Your task to perform on an android device: Open display settings Image 0: 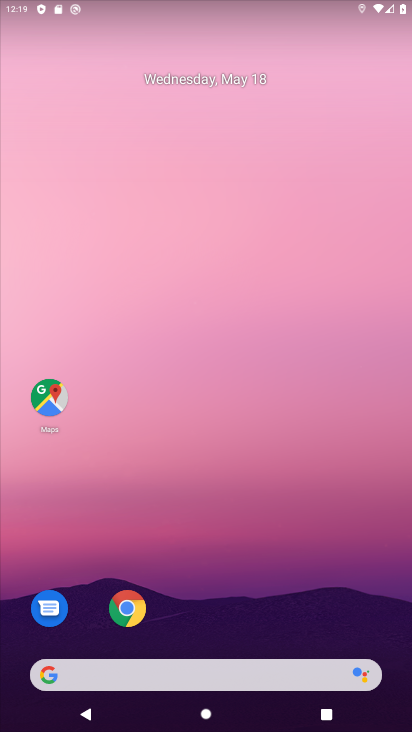
Step 0: drag from (194, 642) to (302, 149)
Your task to perform on an android device: Open display settings Image 1: 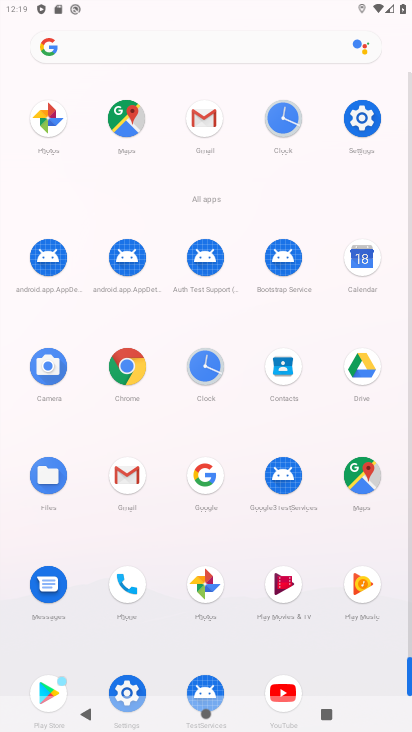
Step 1: drag from (191, 608) to (221, 394)
Your task to perform on an android device: Open display settings Image 2: 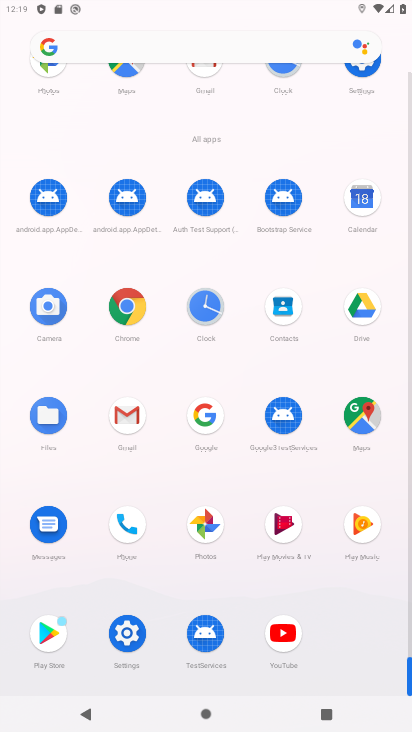
Step 2: click (128, 635)
Your task to perform on an android device: Open display settings Image 3: 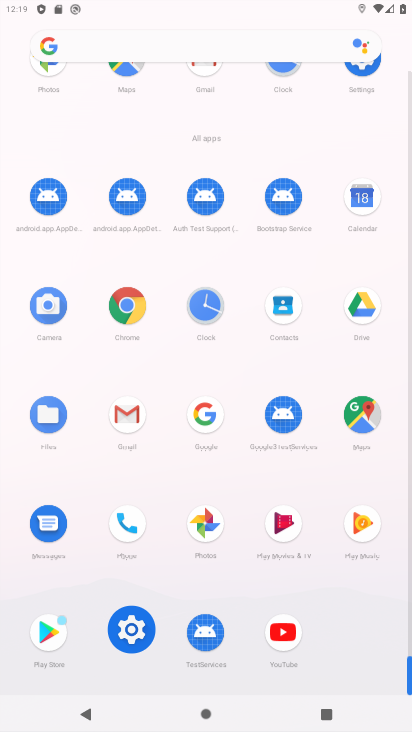
Step 3: click (128, 635)
Your task to perform on an android device: Open display settings Image 4: 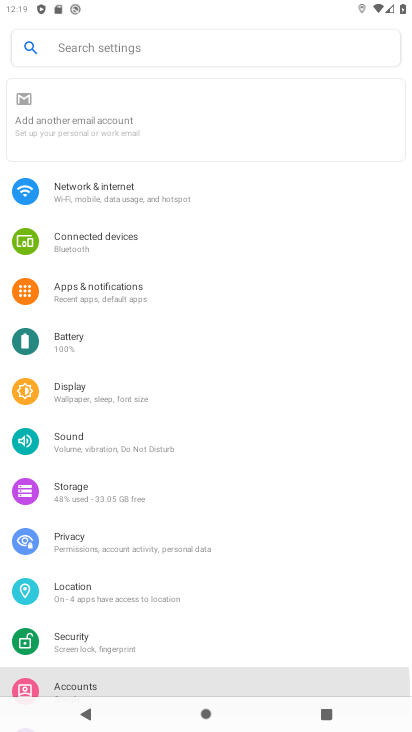
Step 4: click (128, 635)
Your task to perform on an android device: Open display settings Image 5: 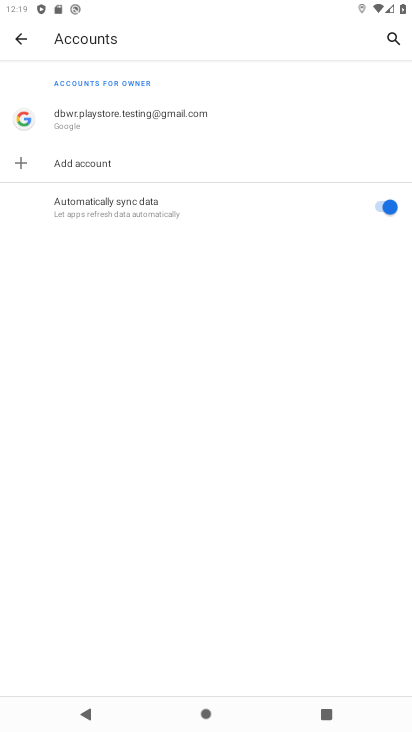
Step 5: click (128, 635)
Your task to perform on an android device: Open display settings Image 6: 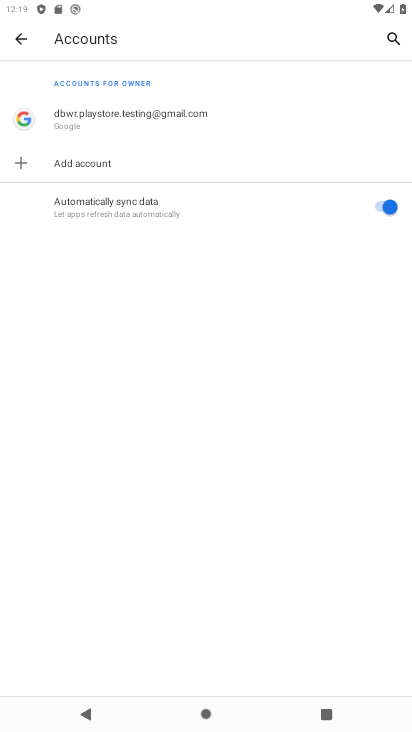
Step 6: press home button
Your task to perform on an android device: Open display settings Image 7: 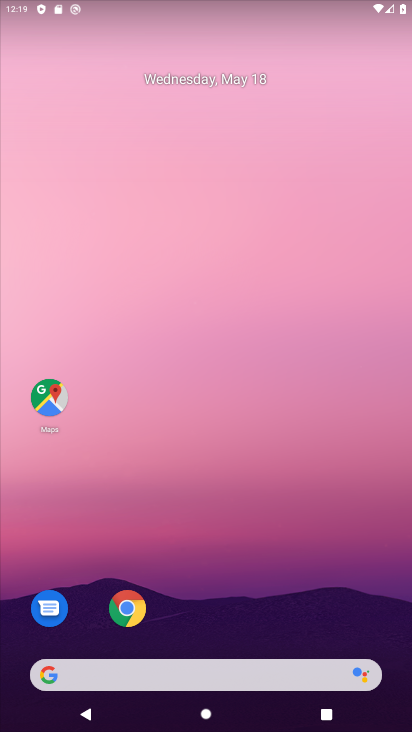
Step 7: drag from (207, 638) to (298, 143)
Your task to perform on an android device: Open display settings Image 8: 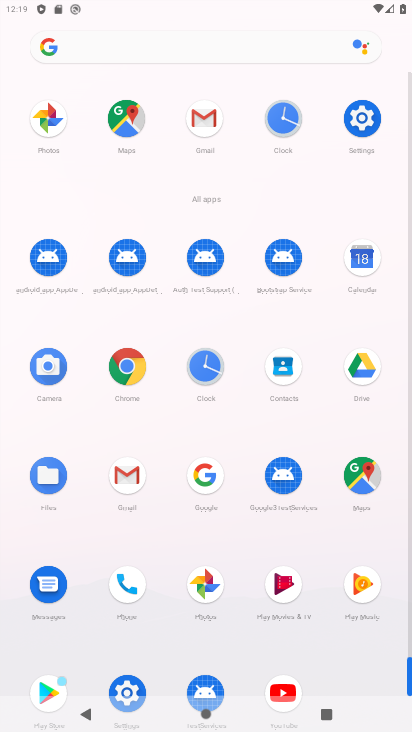
Step 8: drag from (172, 634) to (229, 410)
Your task to perform on an android device: Open display settings Image 9: 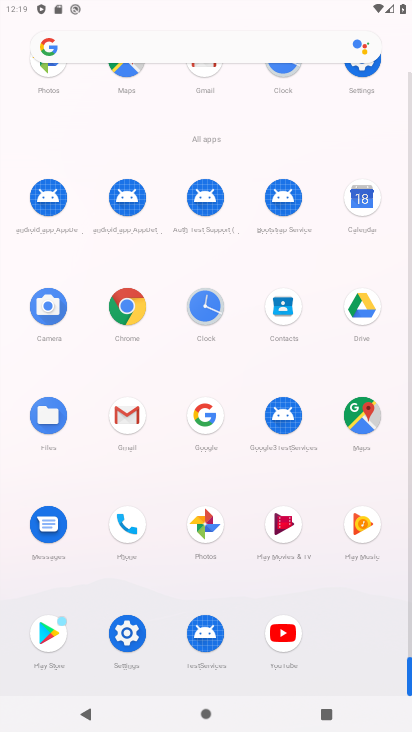
Step 9: click (137, 641)
Your task to perform on an android device: Open display settings Image 10: 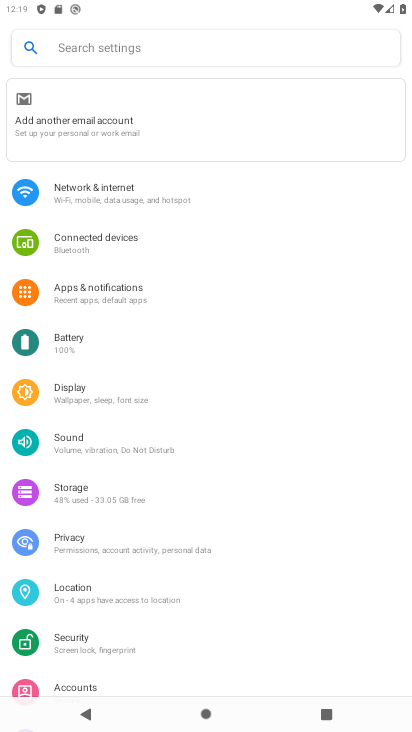
Step 10: click (101, 401)
Your task to perform on an android device: Open display settings Image 11: 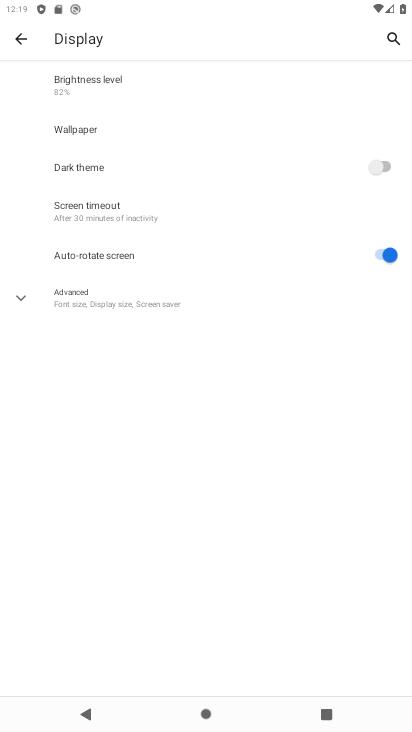
Step 11: click (215, 307)
Your task to perform on an android device: Open display settings Image 12: 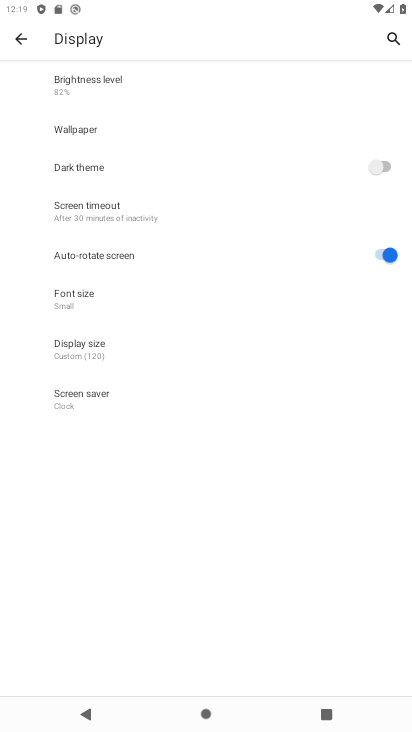
Step 12: task complete